Your task to perform on an android device: Open Reddit.com Image 0: 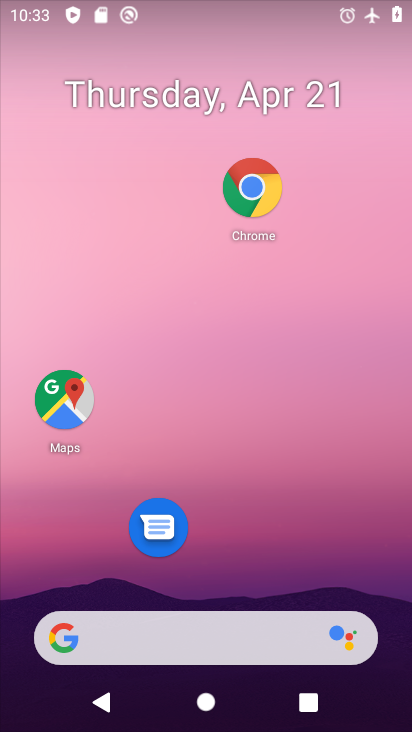
Step 0: drag from (322, 613) to (354, 168)
Your task to perform on an android device: Open Reddit.com Image 1: 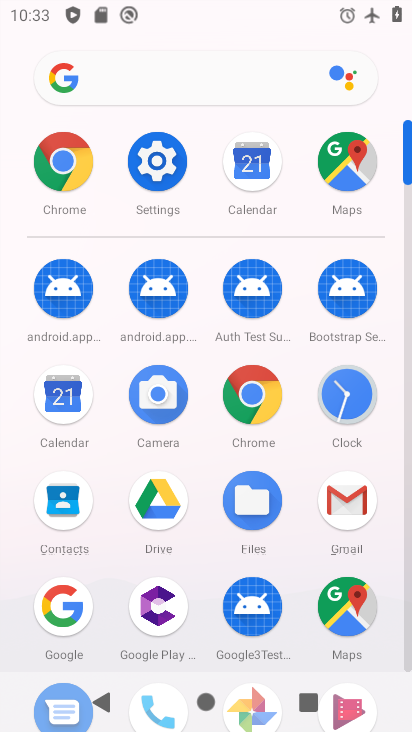
Step 1: click (266, 405)
Your task to perform on an android device: Open Reddit.com Image 2: 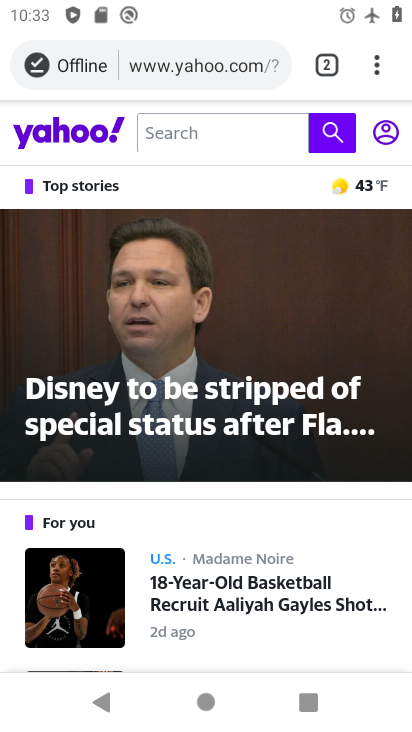
Step 2: click (242, 71)
Your task to perform on an android device: Open Reddit.com Image 3: 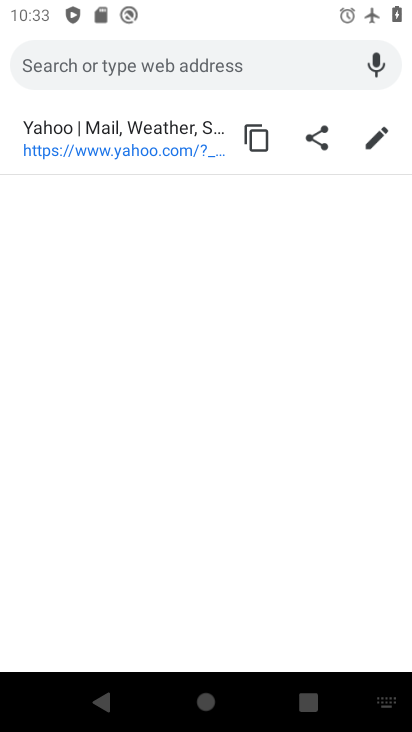
Step 3: type "reddit,com"
Your task to perform on an android device: Open Reddit.com Image 4: 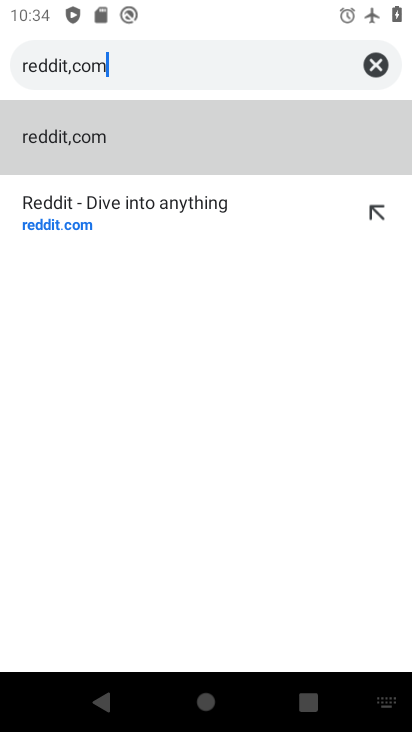
Step 4: click (201, 229)
Your task to perform on an android device: Open Reddit.com Image 5: 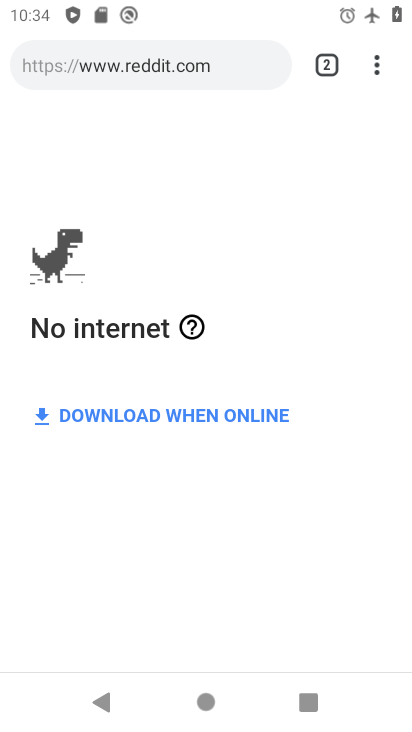
Step 5: task complete